Your task to perform on an android device: change timer sound Image 0: 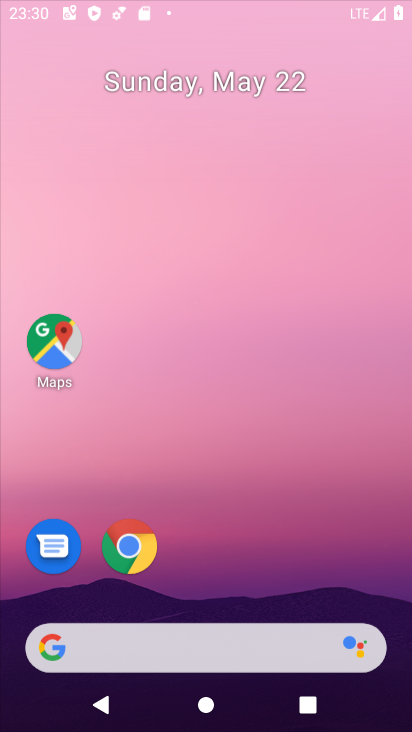
Step 0: click (280, 86)
Your task to perform on an android device: change timer sound Image 1: 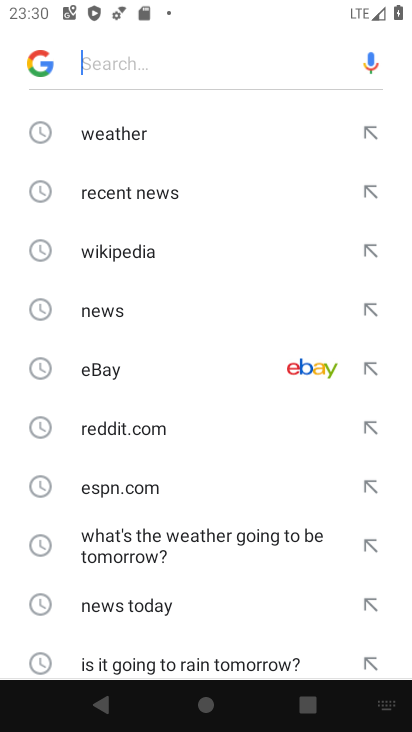
Step 1: drag from (209, 602) to (208, 170)
Your task to perform on an android device: change timer sound Image 2: 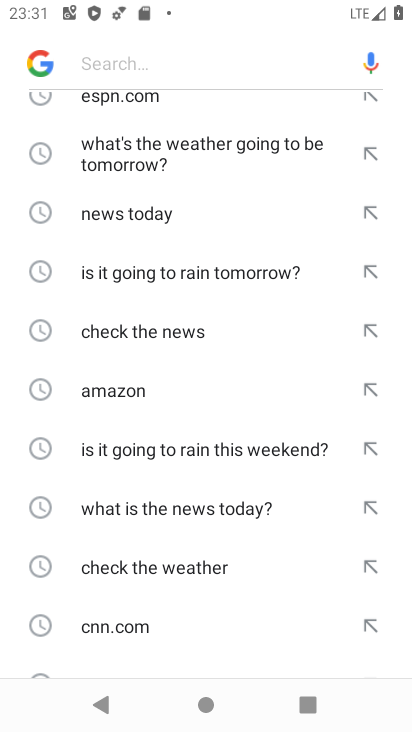
Step 2: press home button
Your task to perform on an android device: change timer sound Image 3: 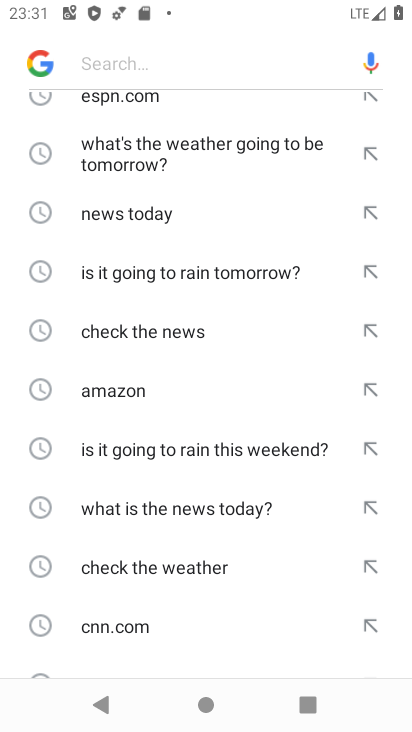
Step 3: press home button
Your task to perform on an android device: change timer sound Image 4: 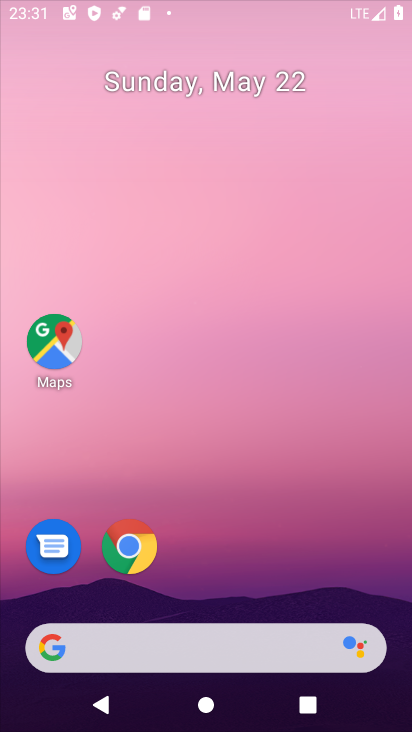
Step 4: drag from (190, 590) to (200, 273)
Your task to perform on an android device: change timer sound Image 5: 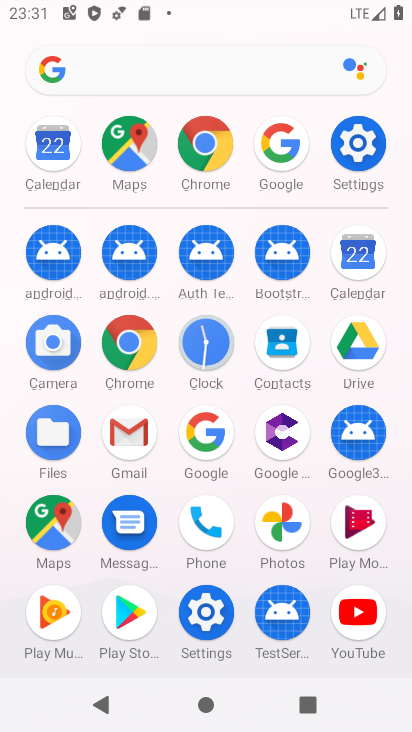
Step 5: click (211, 340)
Your task to perform on an android device: change timer sound Image 6: 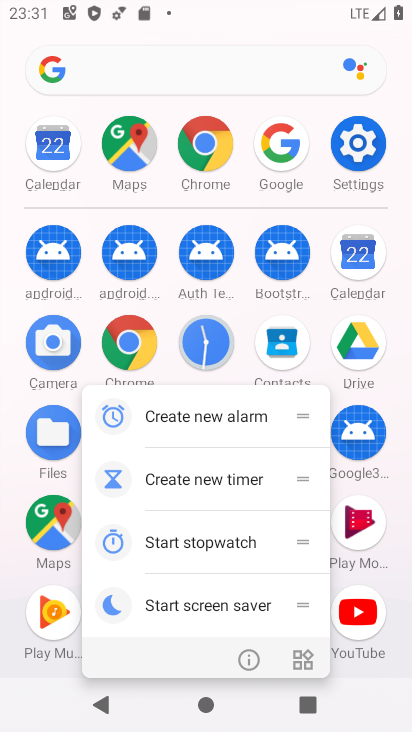
Step 6: click (240, 667)
Your task to perform on an android device: change timer sound Image 7: 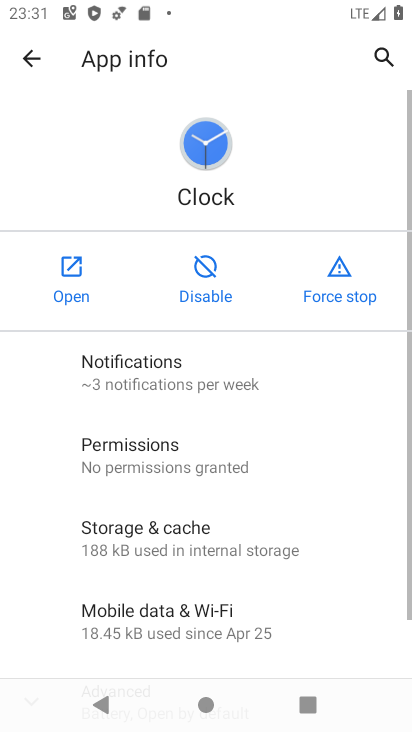
Step 7: click (52, 272)
Your task to perform on an android device: change timer sound Image 8: 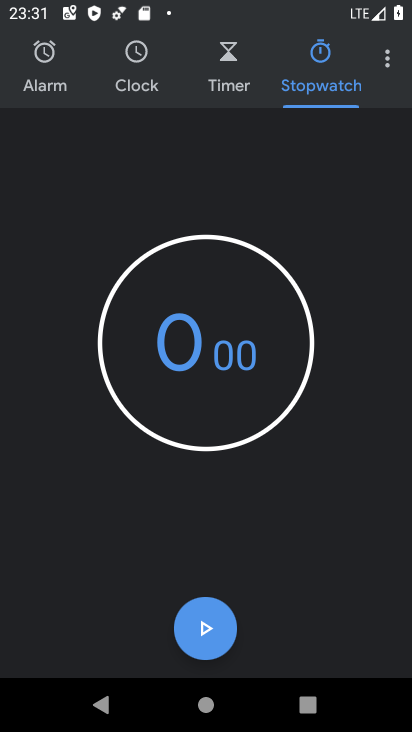
Step 8: click (385, 72)
Your task to perform on an android device: change timer sound Image 9: 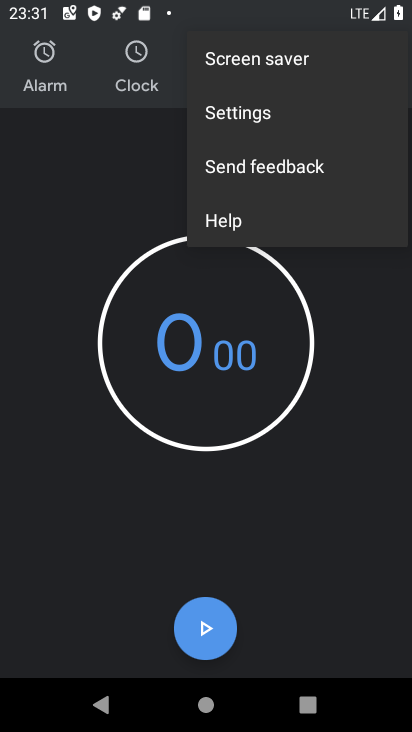
Step 9: click (261, 99)
Your task to perform on an android device: change timer sound Image 10: 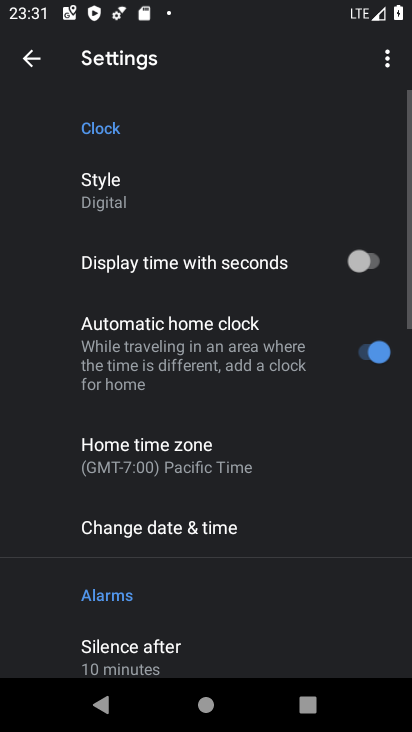
Step 10: drag from (193, 414) to (242, 149)
Your task to perform on an android device: change timer sound Image 11: 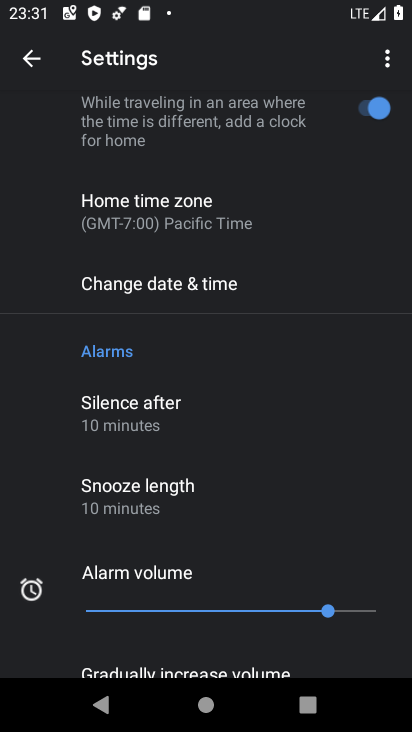
Step 11: drag from (174, 551) to (282, 136)
Your task to perform on an android device: change timer sound Image 12: 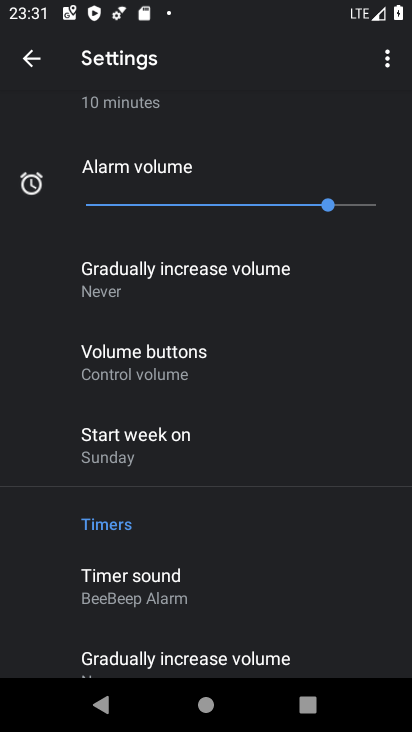
Step 12: click (166, 573)
Your task to perform on an android device: change timer sound Image 13: 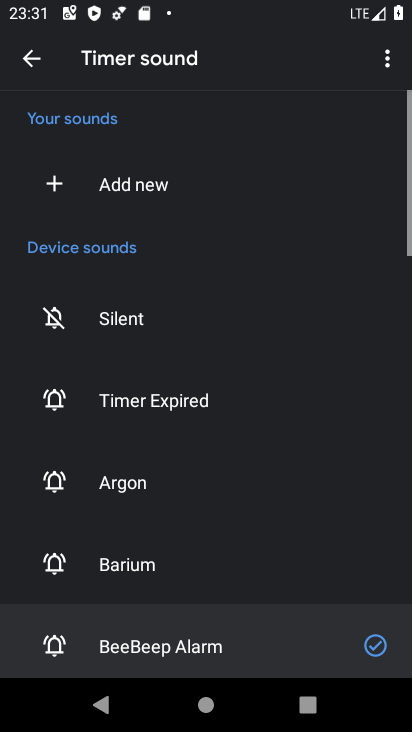
Step 13: drag from (202, 537) to (283, 152)
Your task to perform on an android device: change timer sound Image 14: 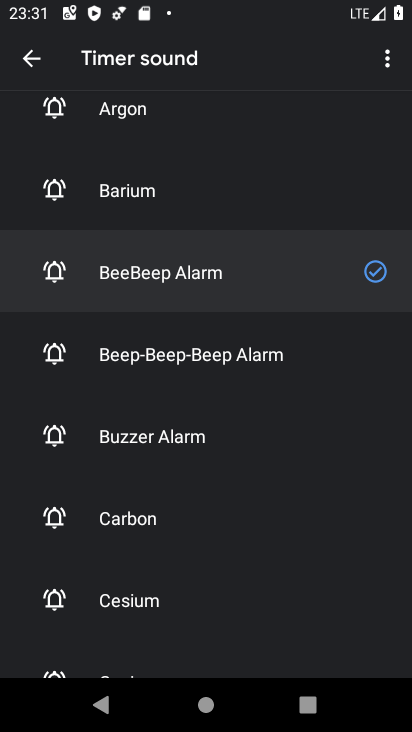
Step 14: click (204, 436)
Your task to perform on an android device: change timer sound Image 15: 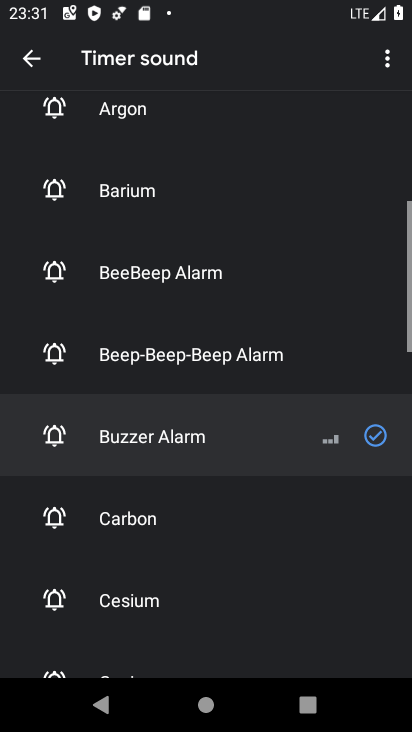
Step 15: task complete